Your task to perform on an android device: change text size in settings app Image 0: 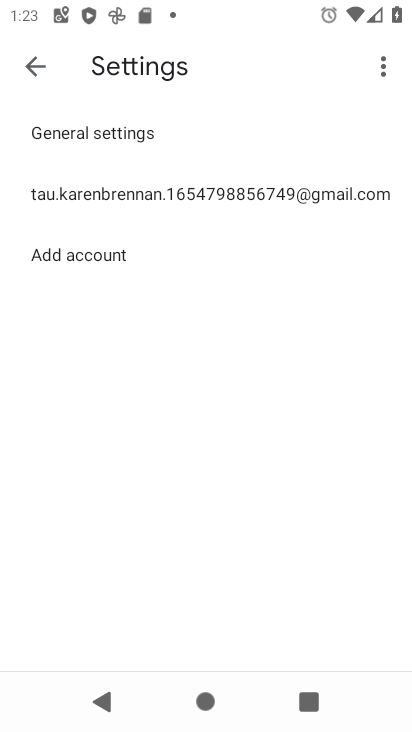
Step 0: press home button
Your task to perform on an android device: change text size in settings app Image 1: 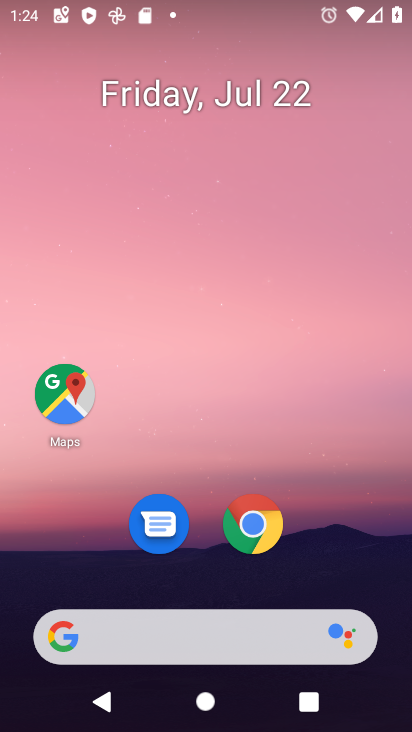
Step 1: drag from (217, 542) to (309, 20)
Your task to perform on an android device: change text size in settings app Image 2: 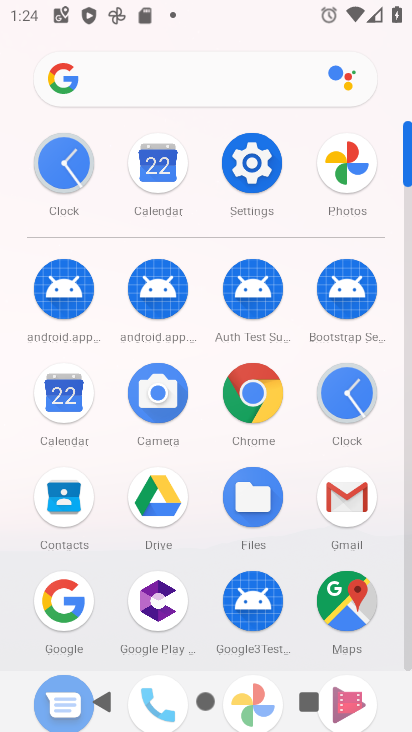
Step 2: click (252, 178)
Your task to perform on an android device: change text size in settings app Image 3: 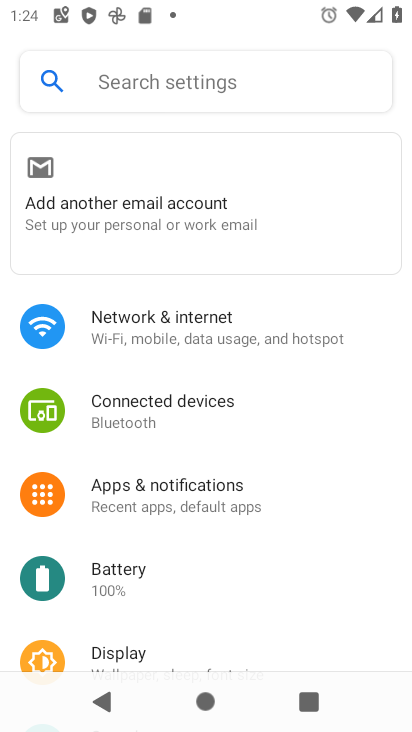
Step 3: drag from (284, 601) to (352, 180)
Your task to perform on an android device: change text size in settings app Image 4: 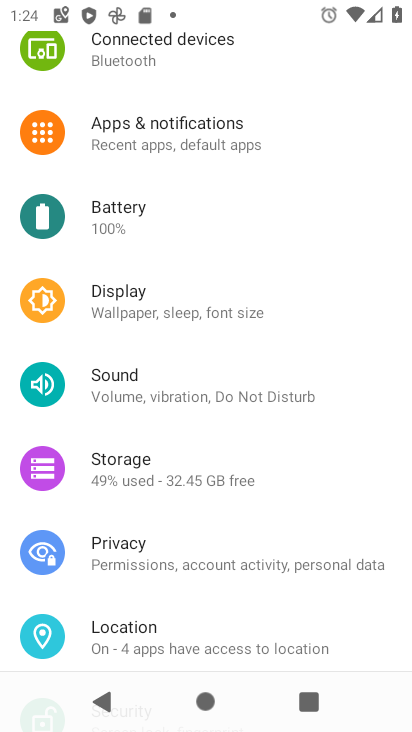
Step 4: drag from (254, 222) to (275, 399)
Your task to perform on an android device: change text size in settings app Image 5: 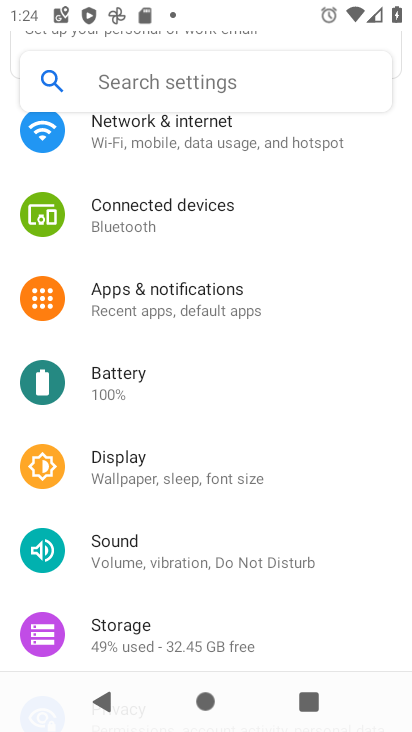
Step 5: click (171, 477)
Your task to perform on an android device: change text size in settings app Image 6: 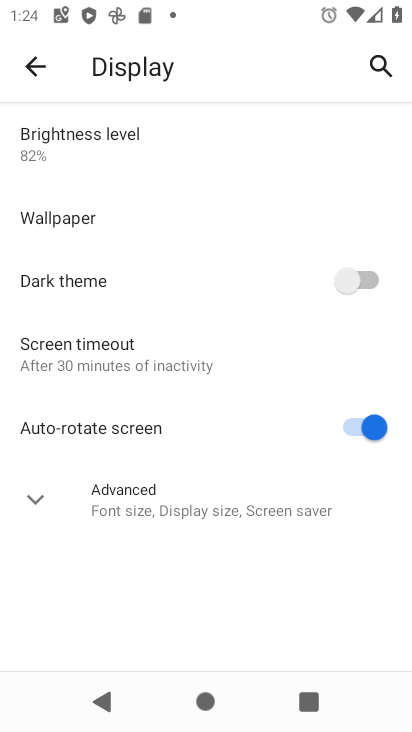
Step 6: click (151, 504)
Your task to perform on an android device: change text size in settings app Image 7: 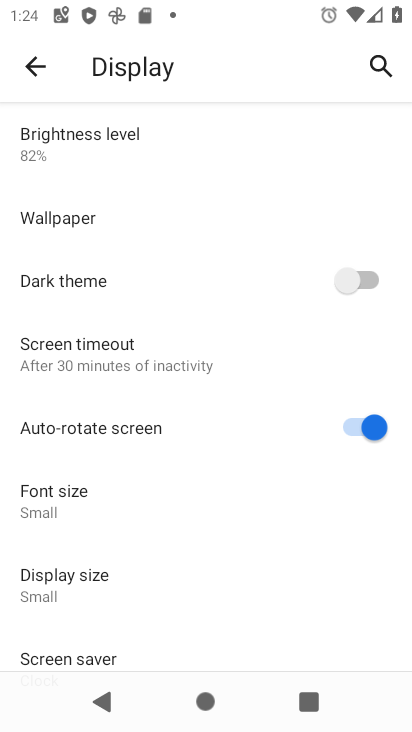
Step 7: click (60, 513)
Your task to perform on an android device: change text size in settings app Image 8: 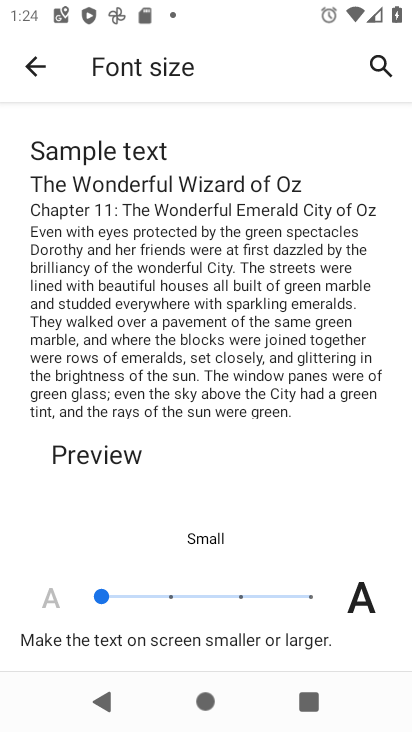
Step 8: click (166, 596)
Your task to perform on an android device: change text size in settings app Image 9: 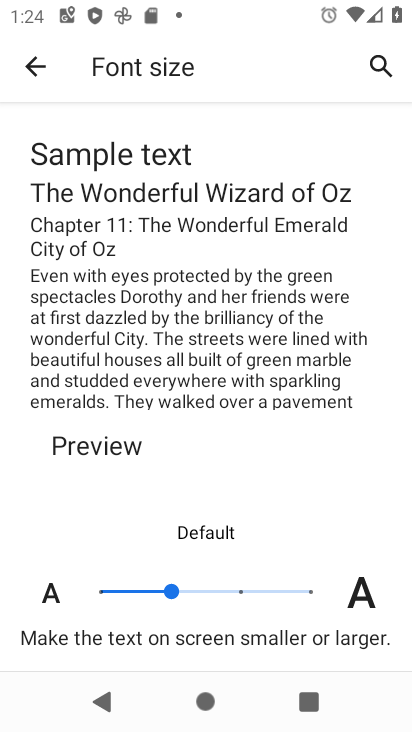
Step 9: task complete